Your task to perform on an android device: check out phone information Image 0: 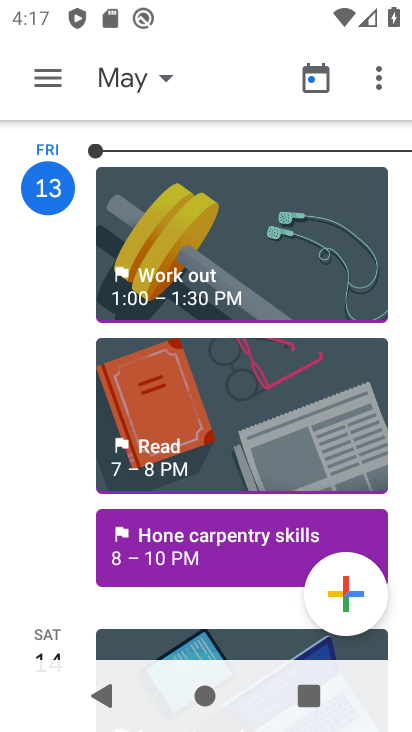
Step 0: click (388, 85)
Your task to perform on an android device: check out phone information Image 1: 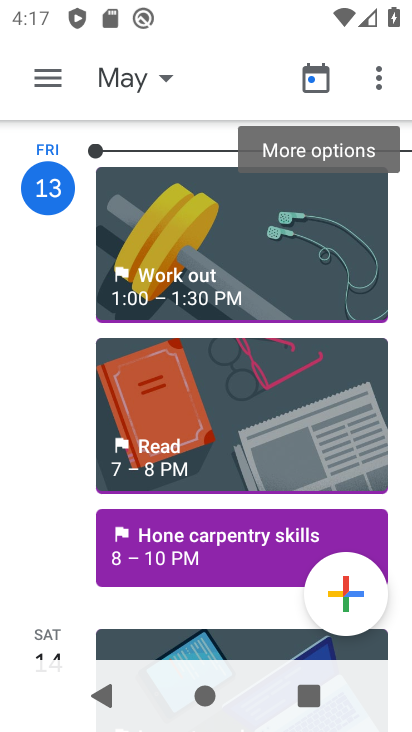
Step 1: press home button
Your task to perform on an android device: check out phone information Image 2: 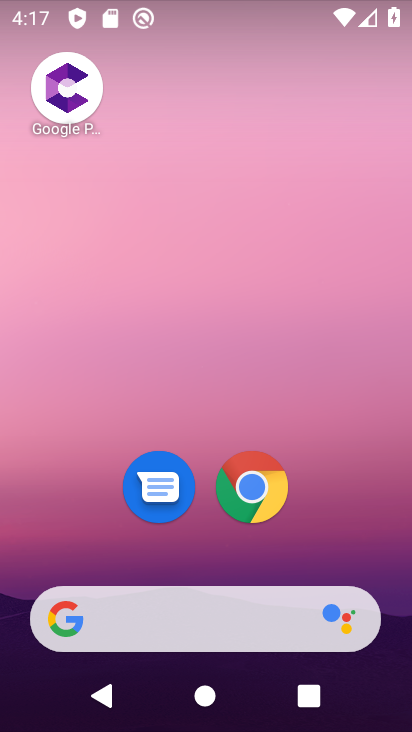
Step 2: drag from (307, 547) to (320, 74)
Your task to perform on an android device: check out phone information Image 3: 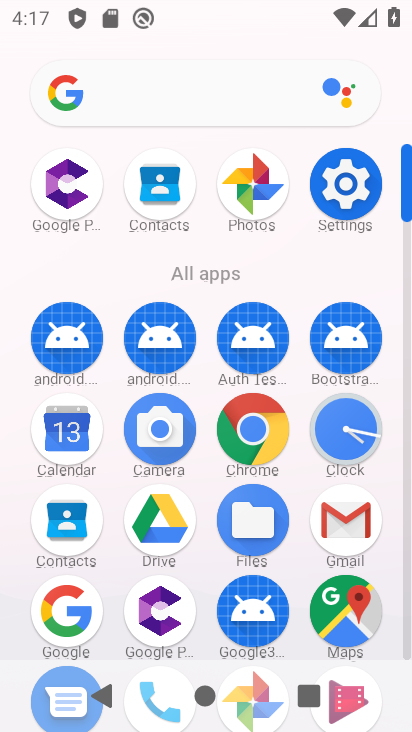
Step 3: click (363, 194)
Your task to perform on an android device: check out phone information Image 4: 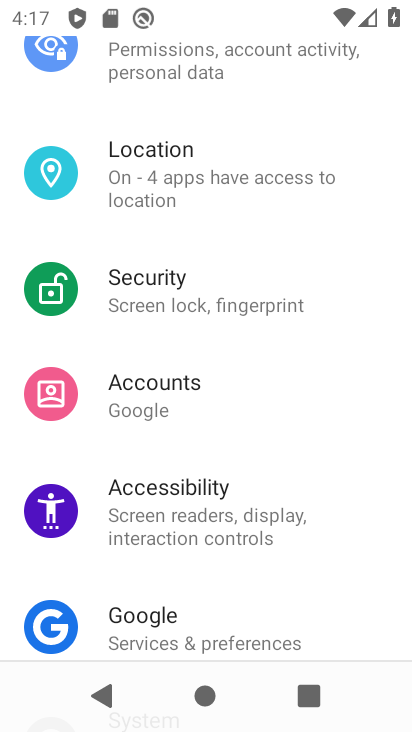
Step 4: task complete